Your task to perform on an android device: Open battery settings Image 0: 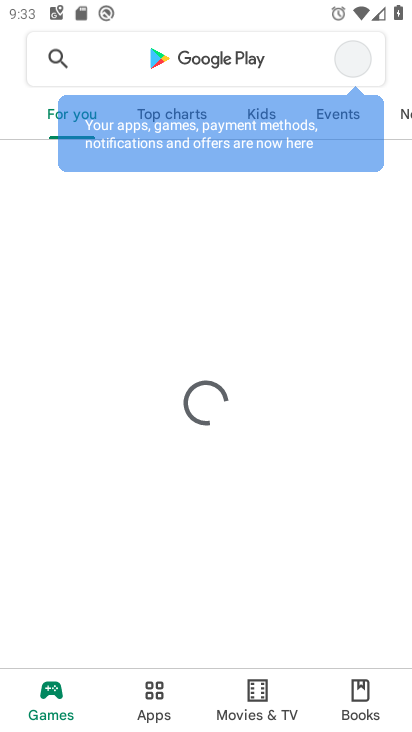
Step 0: press home button
Your task to perform on an android device: Open battery settings Image 1: 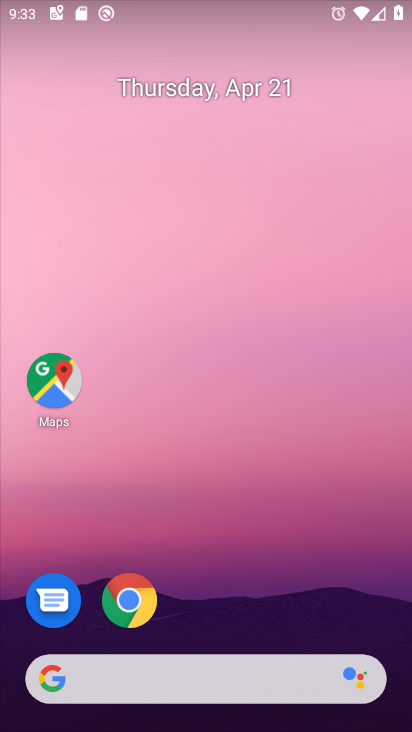
Step 1: drag from (222, 530) to (241, 86)
Your task to perform on an android device: Open battery settings Image 2: 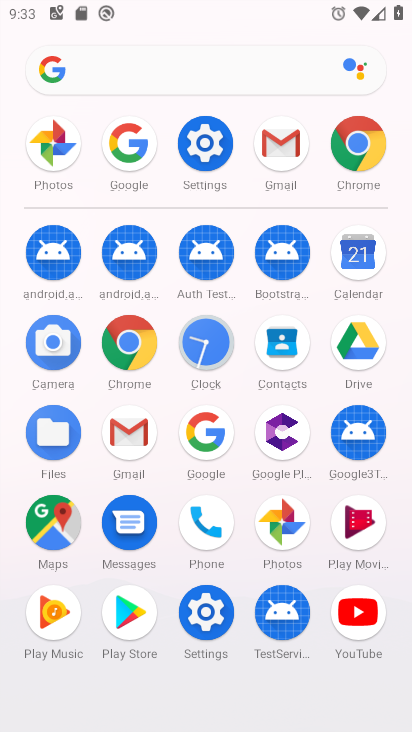
Step 2: click (208, 143)
Your task to perform on an android device: Open battery settings Image 3: 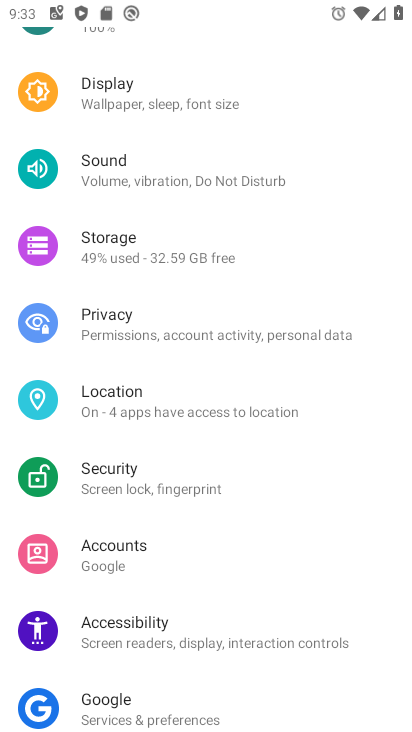
Step 3: drag from (182, 182) to (183, 531)
Your task to perform on an android device: Open battery settings Image 4: 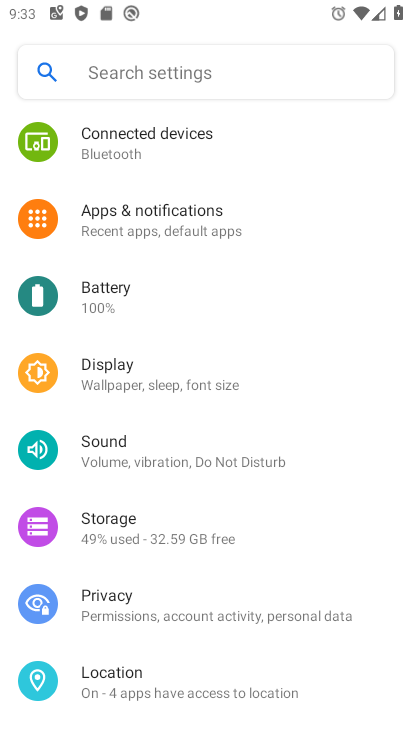
Step 4: click (99, 294)
Your task to perform on an android device: Open battery settings Image 5: 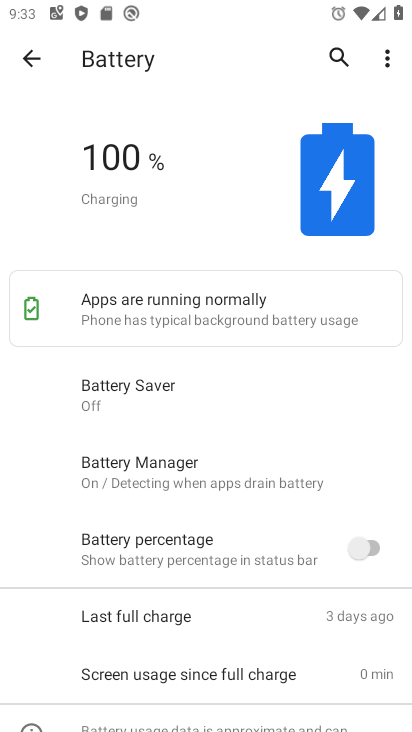
Step 5: task complete